Your task to perform on an android device: set default search engine in the chrome app Image 0: 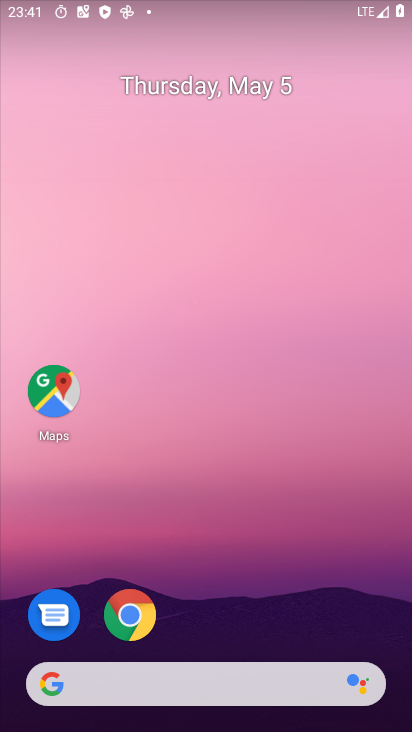
Step 0: drag from (258, 613) to (247, 149)
Your task to perform on an android device: set default search engine in the chrome app Image 1: 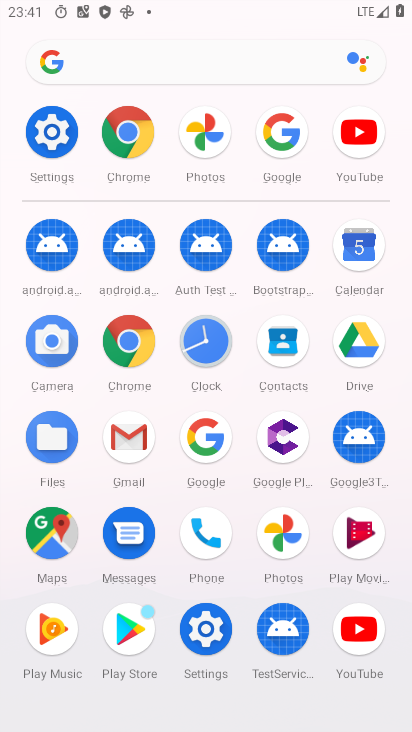
Step 1: click (128, 341)
Your task to perform on an android device: set default search engine in the chrome app Image 2: 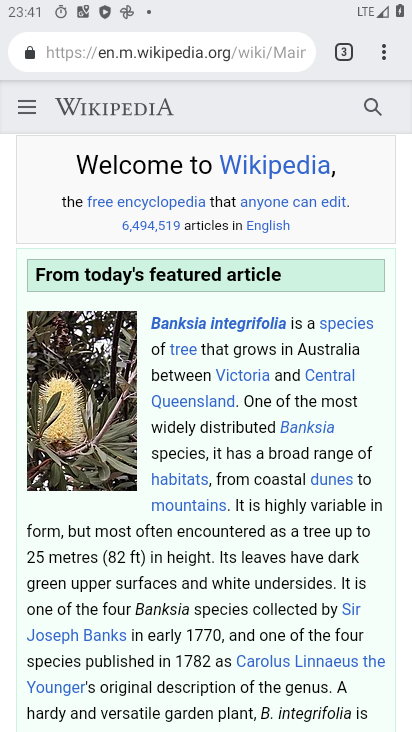
Step 2: click (378, 50)
Your task to perform on an android device: set default search engine in the chrome app Image 3: 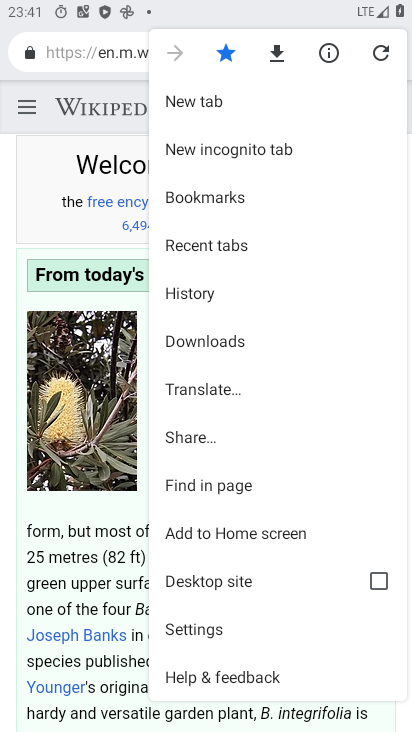
Step 3: click (207, 628)
Your task to perform on an android device: set default search engine in the chrome app Image 4: 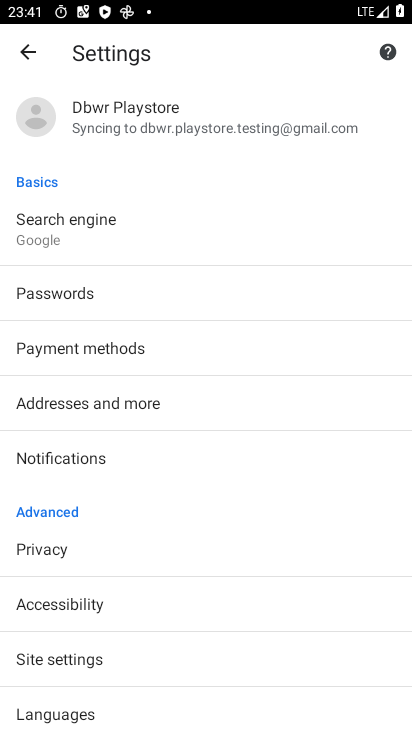
Step 4: drag from (219, 618) to (281, 565)
Your task to perform on an android device: set default search engine in the chrome app Image 5: 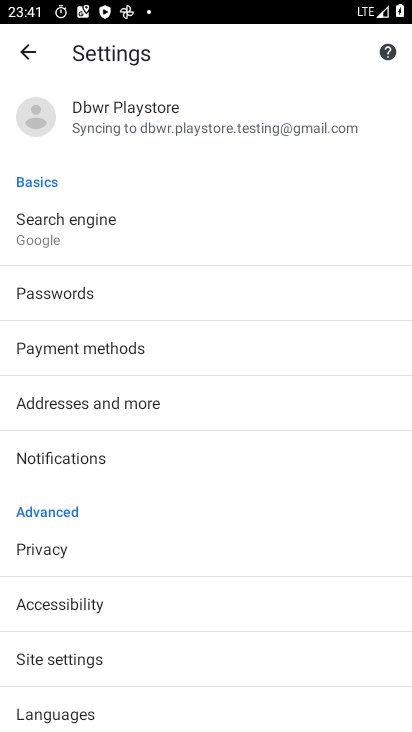
Step 5: click (102, 242)
Your task to perform on an android device: set default search engine in the chrome app Image 6: 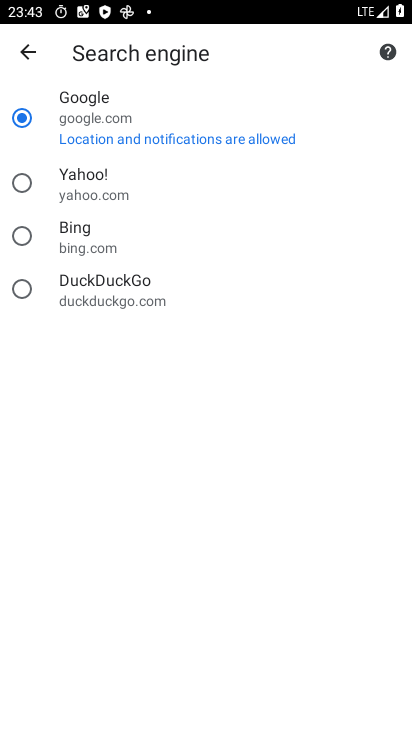
Step 6: task complete